Your task to perform on an android device: What's the weather? Image 0: 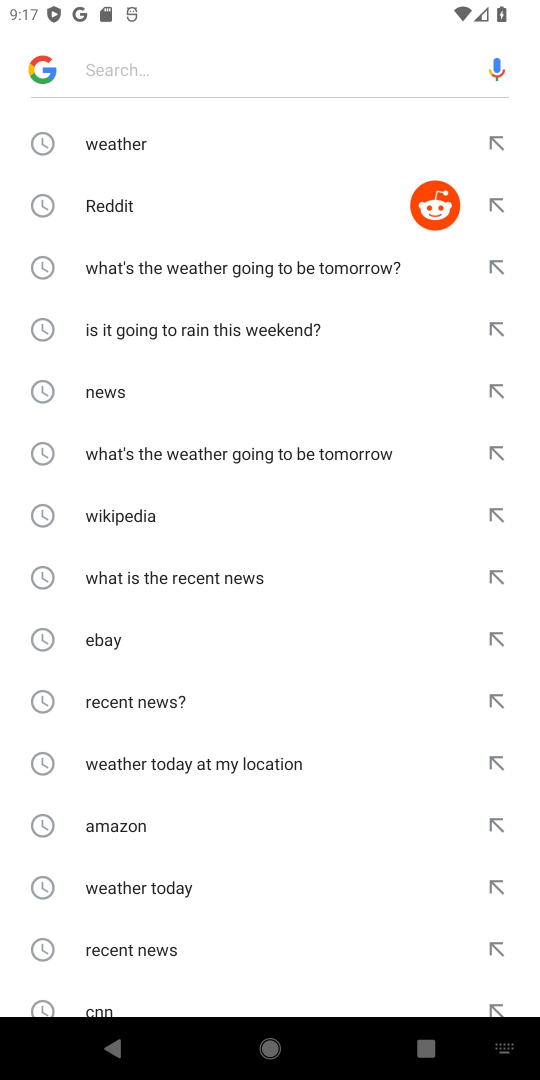
Step 0: click (116, 147)
Your task to perform on an android device: What's the weather? Image 1: 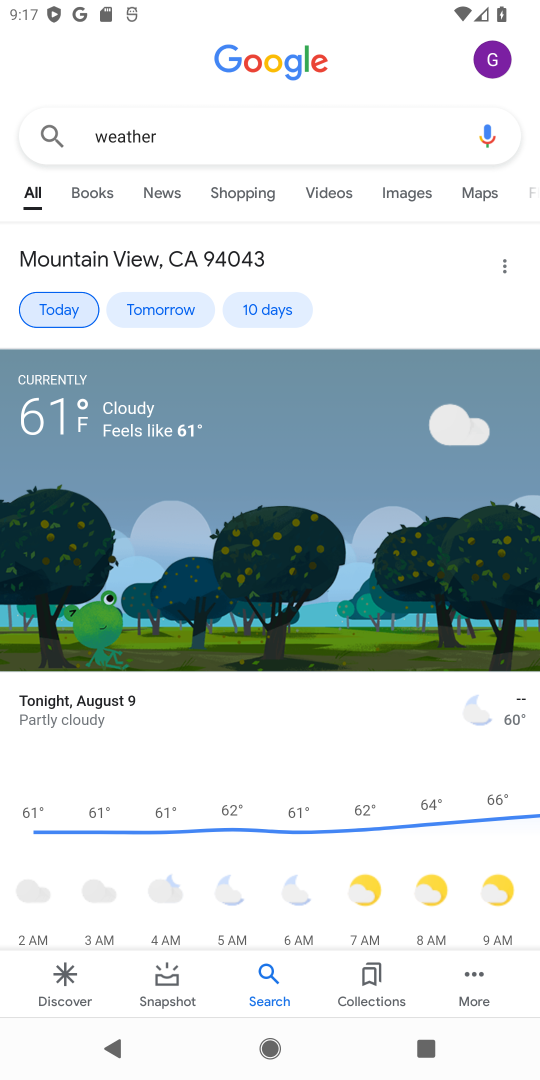
Step 1: click (60, 306)
Your task to perform on an android device: What's the weather? Image 2: 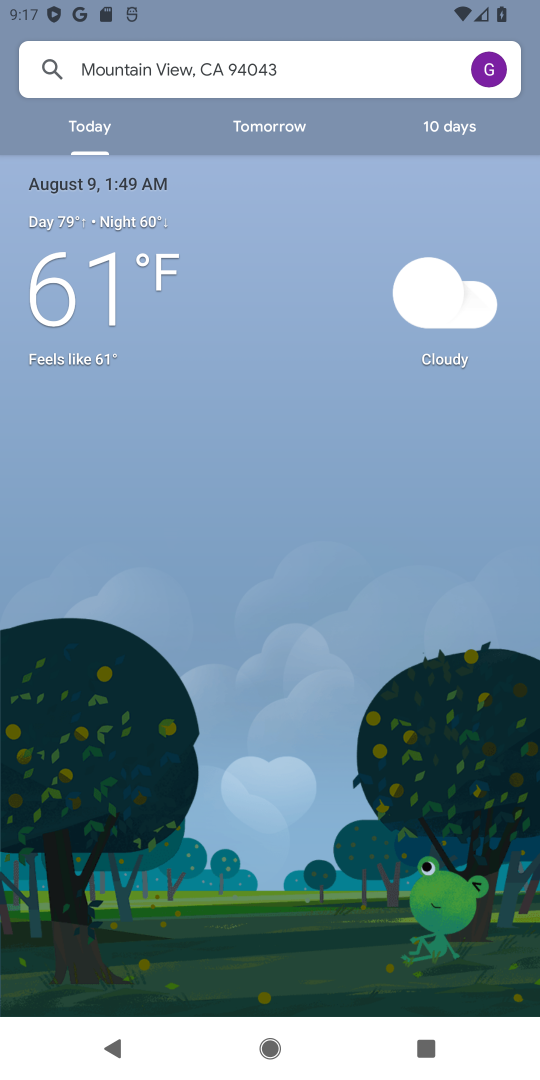
Step 2: task complete